Your task to perform on an android device: Open Google Chrome and click the shortcut for Amazon.com Image 0: 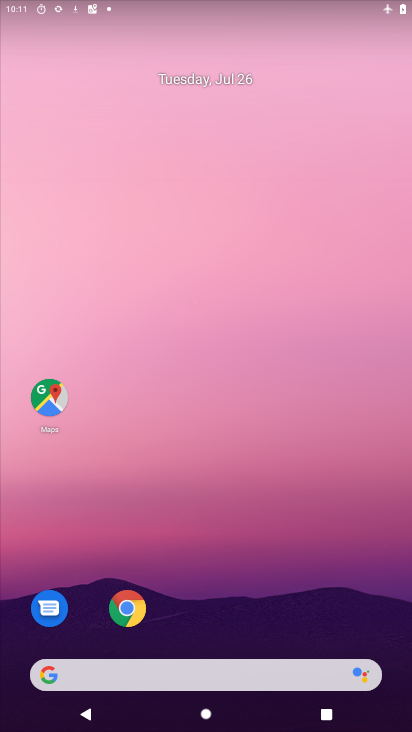
Step 0: click (137, 609)
Your task to perform on an android device: Open Google Chrome and click the shortcut for Amazon.com Image 1: 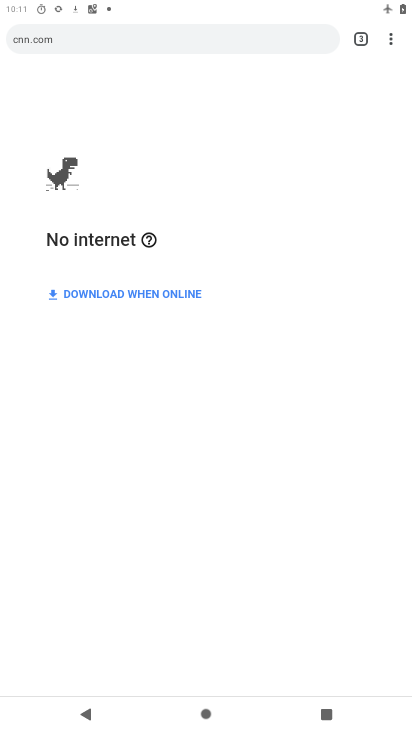
Step 1: task complete